Your task to perform on an android device: toggle priority inbox in the gmail app Image 0: 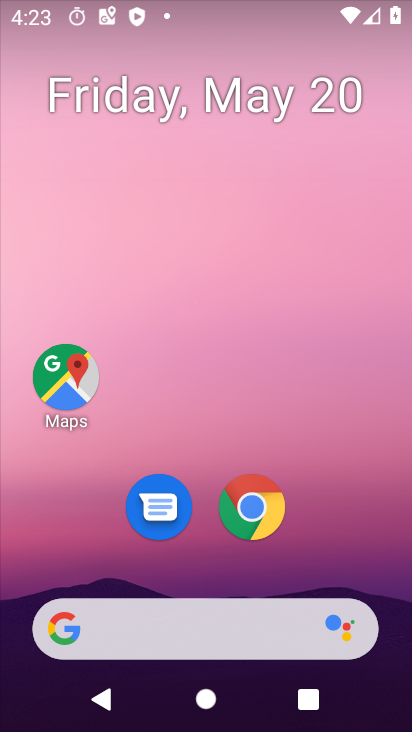
Step 0: drag from (333, 522) to (212, 120)
Your task to perform on an android device: toggle priority inbox in the gmail app Image 1: 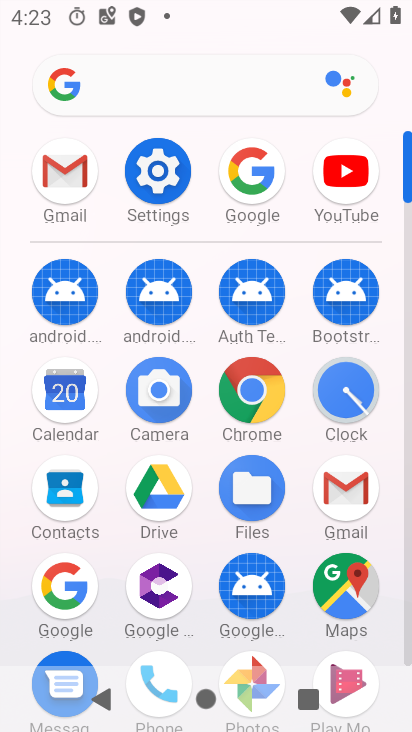
Step 1: click (63, 173)
Your task to perform on an android device: toggle priority inbox in the gmail app Image 2: 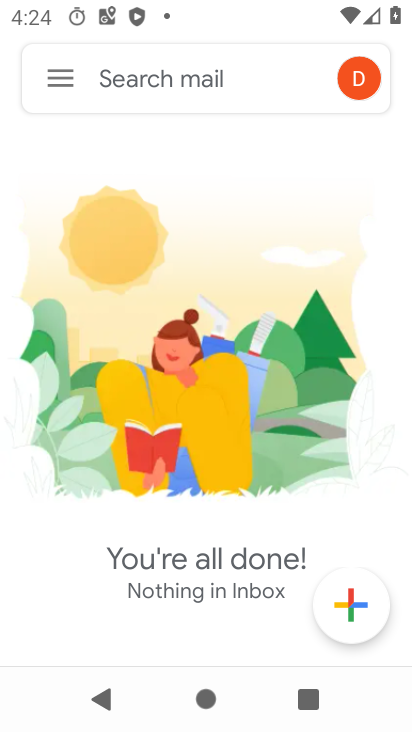
Step 2: click (61, 76)
Your task to perform on an android device: toggle priority inbox in the gmail app Image 3: 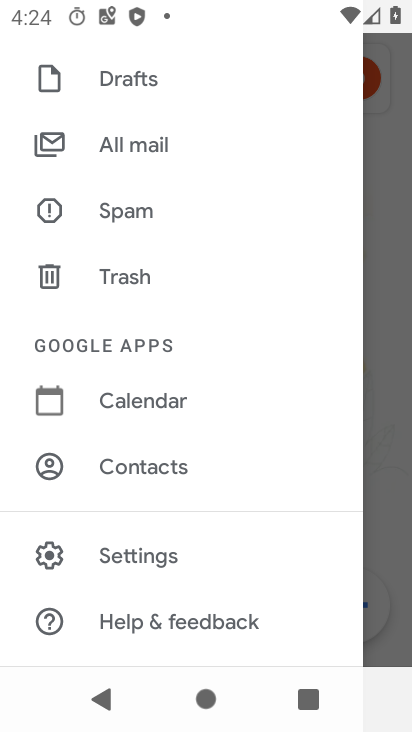
Step 3: click (135, 554)
Your task to perform on an android device: toggle priority inbox in the gmail app Image 4: 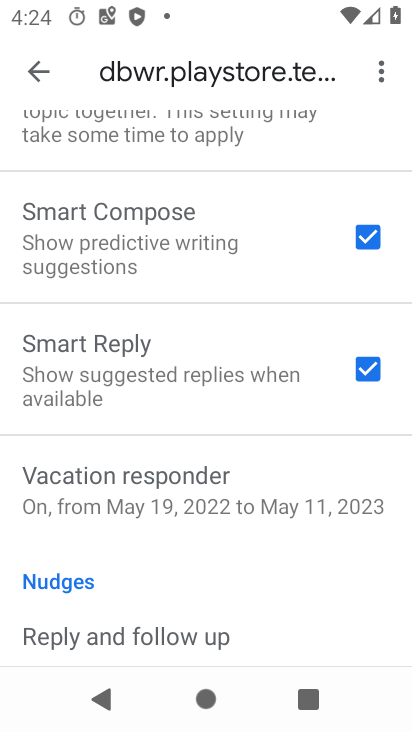
Step 4: drag from (189, 276) to (146, 483)
Your task to perform on an android device: toggle priority inbox in the gmail app Image 5: 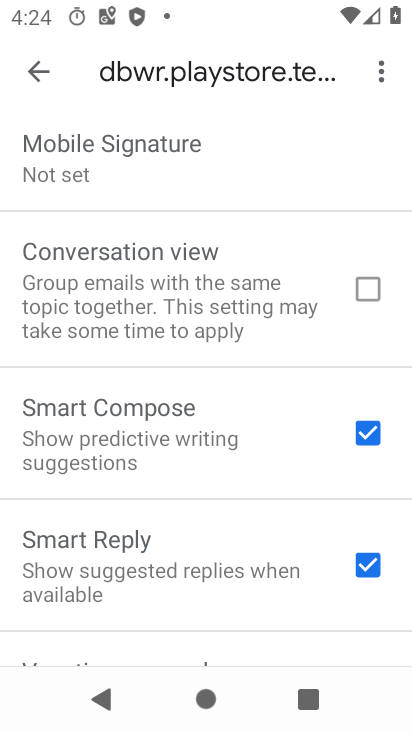
Step 5: drag from (157, 251) to (98, 419)
Your task to perform on an android device: toggle priority inbox in the gmail app Image 6: 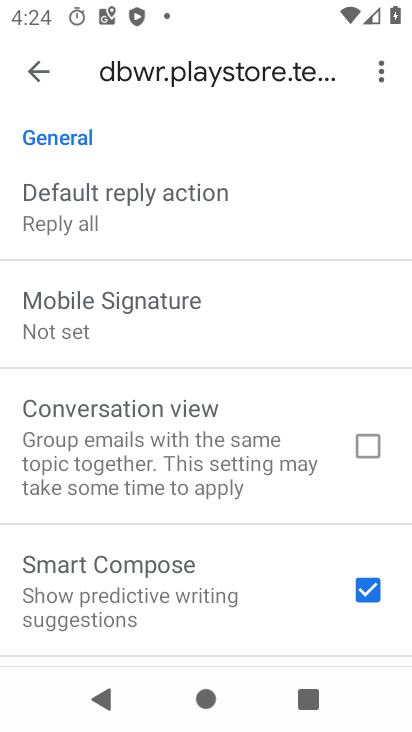
Step 6: drag from (124, 278) to (124, 441)
Your task to perform on an android device: toggle priority inbox in the gmail app Image 7: 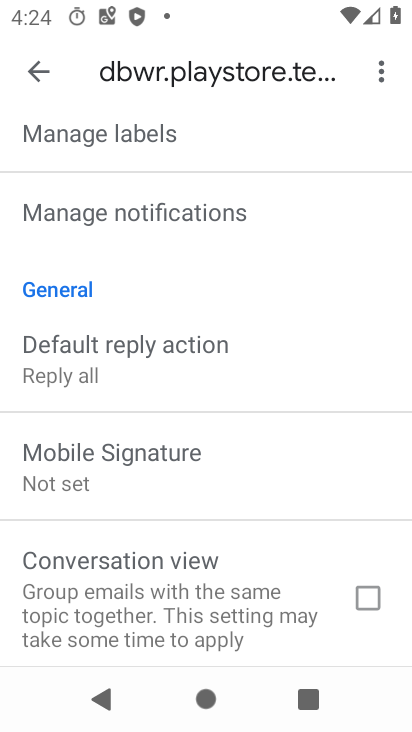
Step 7: drag from (138, 278) to (133, 418)
Your task to perform on an android device: toggle priority inbox in the gmail app Image 8: 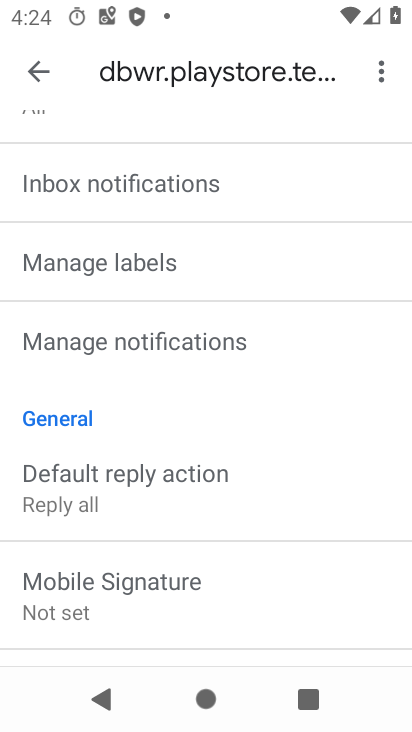
Step 8: drag from (162, 242) to (133, 405)
Your task to perform on an android device: toggle priority inbox in the gmail app Image 9: 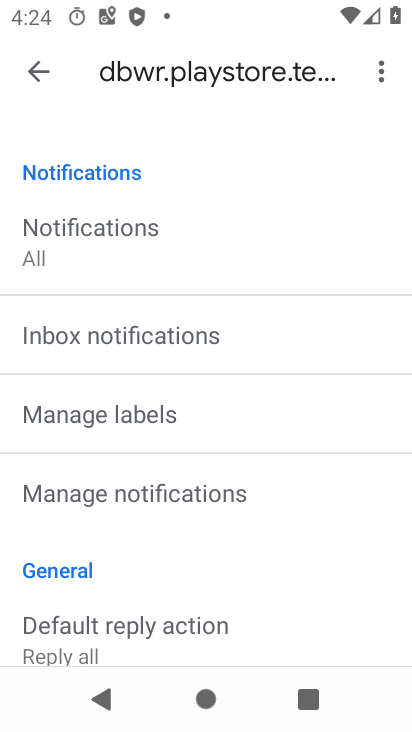
Step 9: drag from (164, 230) to (166, 368)
Your task to perform on an android device: toggle priority inbox in the gmail app Image 10: 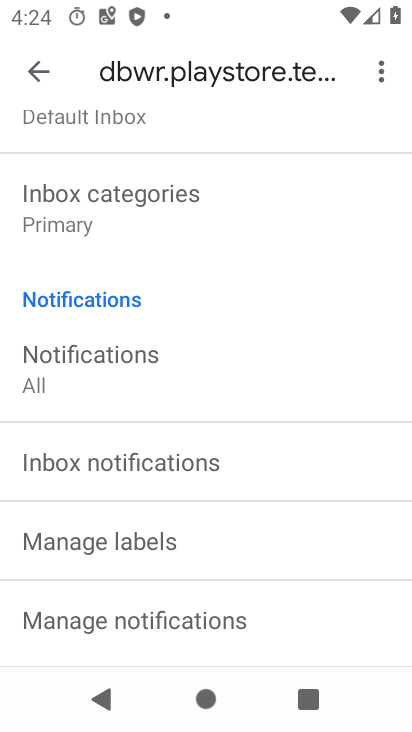
Step 10: drag from (162, 261) to (170, 387)
Your task to perform on an android device: toggle priority inbox in the gmail app Image 11: 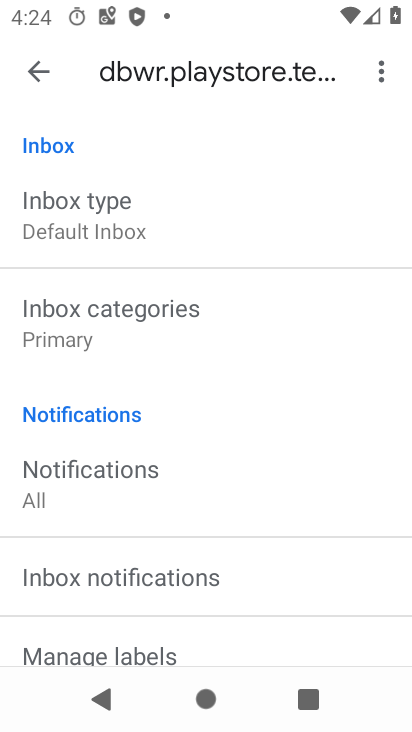
Step 11: click (94, 214)
Your task to perform on an android device: toggle priority inbox in the gmail app Image 12: 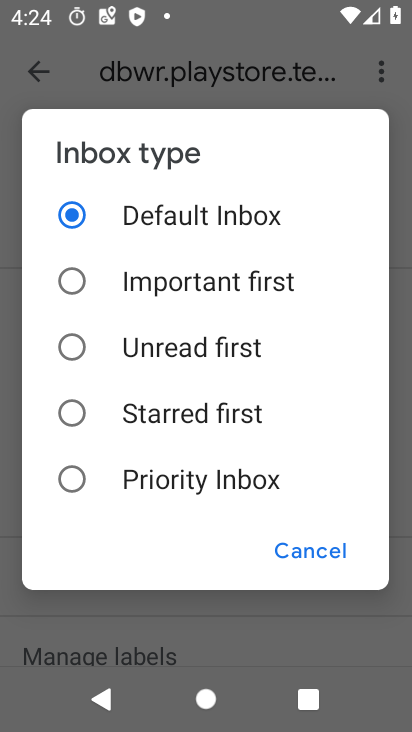
Step 12: click (79, 478)
Your task to perform on an android device: toggle priority inbox in the gmail app Image 13: 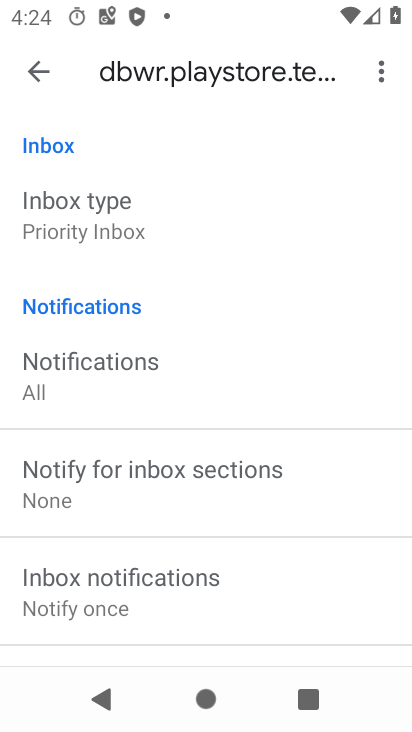
Step 13: task complete